Your task to perform on an android device: toggle priority inbox in the gmail app Image 0: 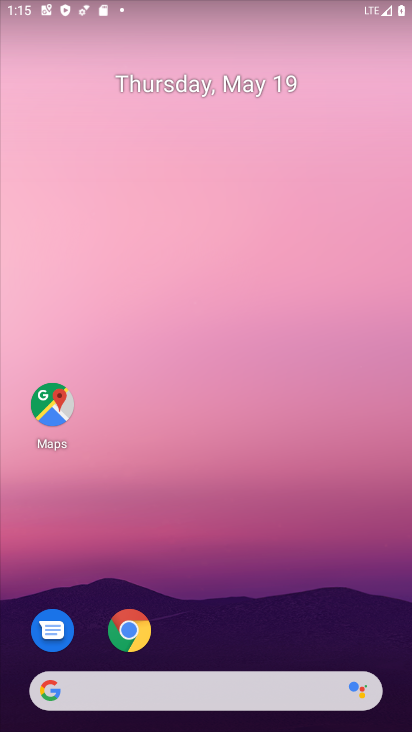
Step 0: drag from (248, 659) to (217, 43)
Your task to perform on an android device: toggle priority inbox in the gmail app Image 1: 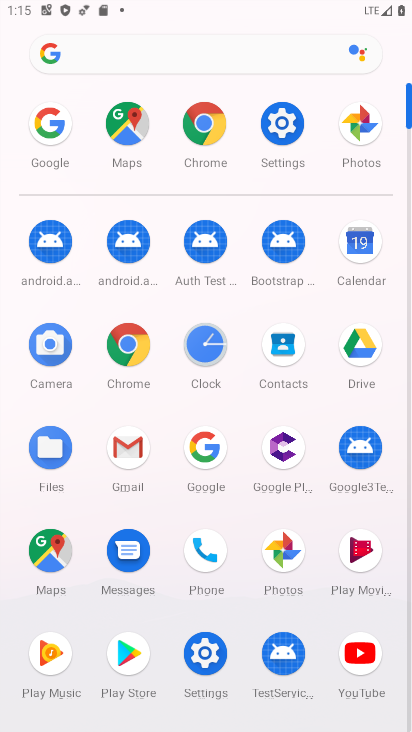
Step 1: click (135, 445)
Your task to perform on an android device: toggle priority inbox in the gmail app Image 2: 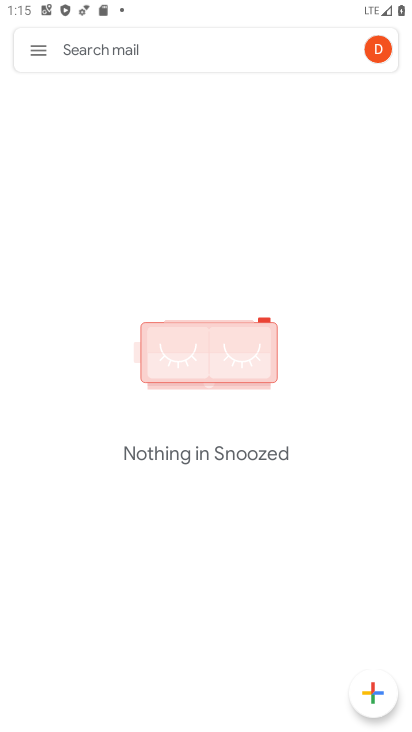
Step 2: click (42, 28)
Your task to perform on an android device: toggle priority inbox in the gmail app Image 3: 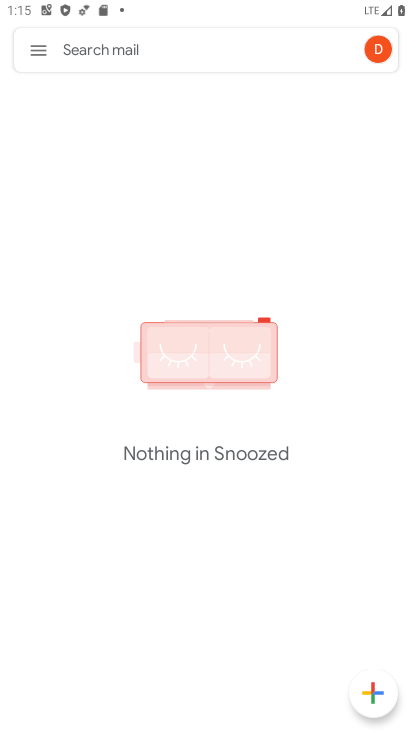
Step 3: click (44, 51)
Your task to perform on an android device: toggle priority inbox in the gmail app Image 4: 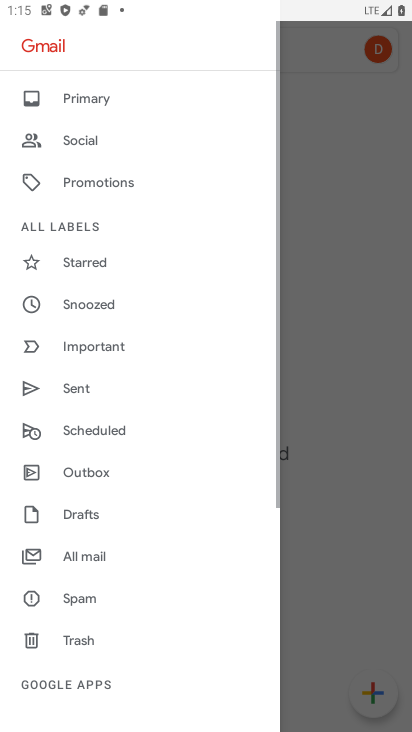
Step 4: drag from (92, 588) to (72, 293)
Your task to perform on an android device: toggle priority inbox in the gmail app Image 5: 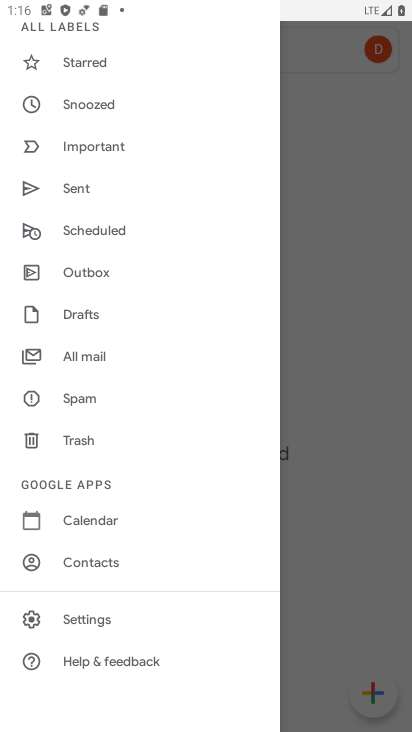
Step 5: click (92, 621)
Your task to perform on an android device: toggle priority inbox in the gmail app Image 6: 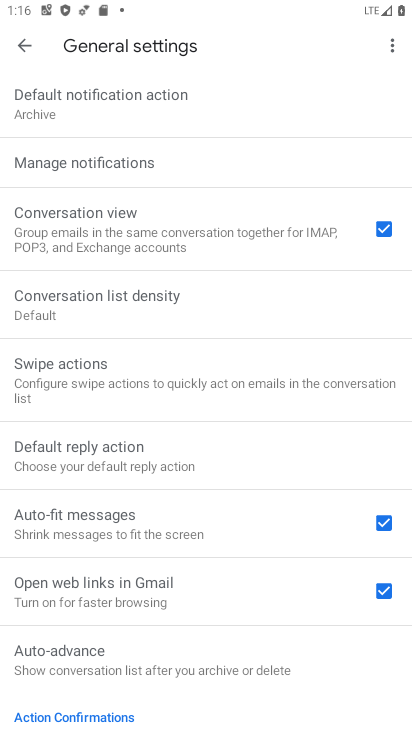
Step 6: click (23, 40)
Your task to perform on an android device: toggle priority inbox in the gmail app Image 7: 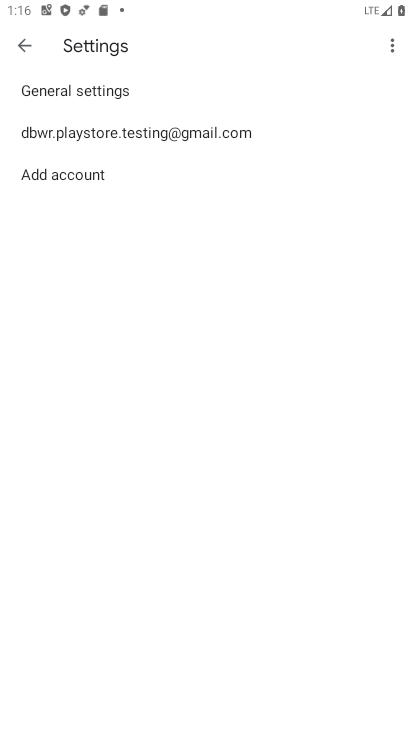
Step 7: click (89, 134)
Your task to perform on an android device: toggle priority inbox in the gmail app Image 8: 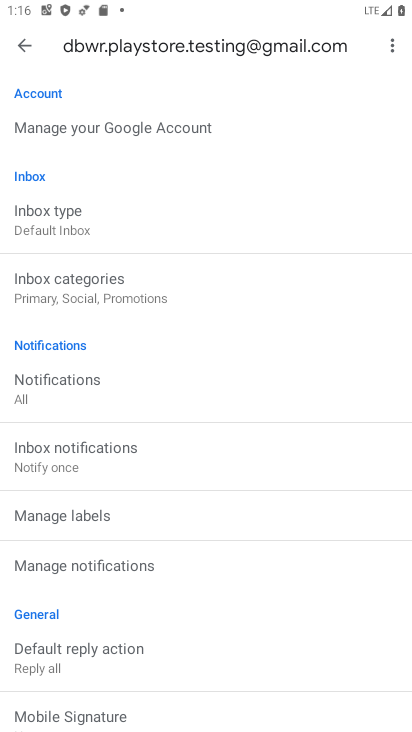
Step 8: click (77, 223)
Your task to perform on an android device: toggle priority inbox in the gmail app Image 9: 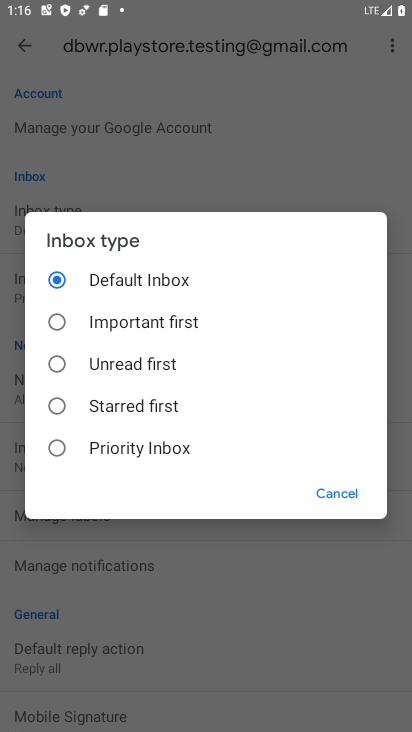
Step 9: click (117, 447)
Your task to perform on an android device: toggle priority inbox in the gmail app Image 10: 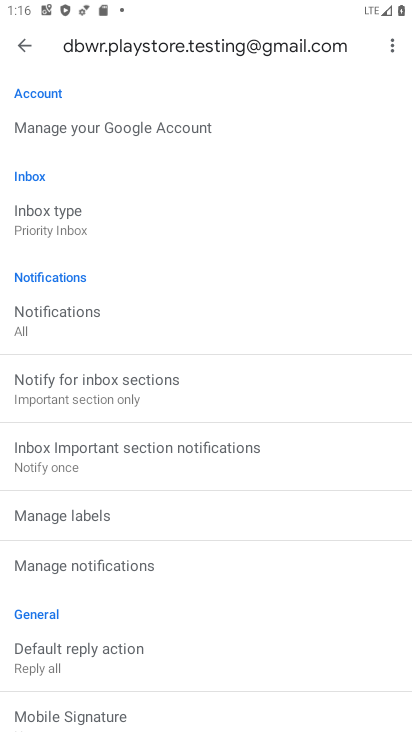
Step 10: task complete